Your task to perform on an android device: add a contact in the contacts app Image 0: 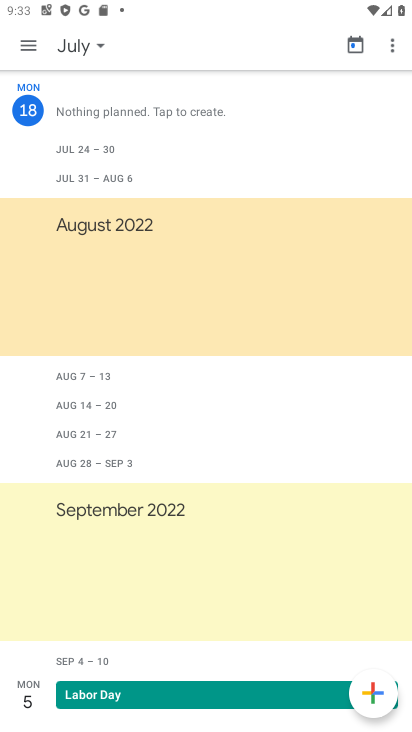
Step 0: press home button
Your task to perform on an android device: add a contact in the contacts app Image 1: 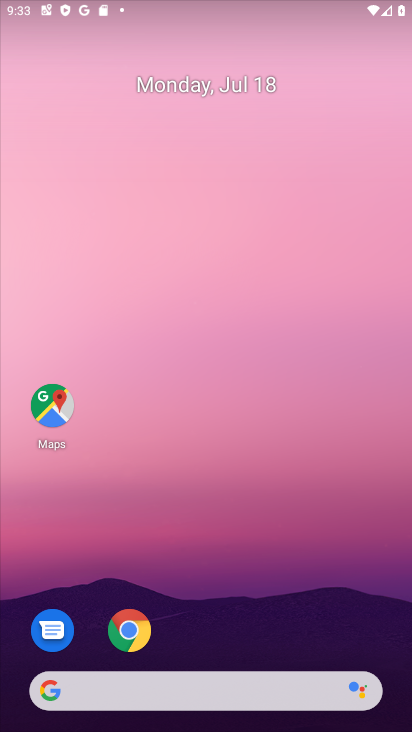
Step 1: drag from (382, 647) to (283, 70)
Your task to perform on an android device: add a contact in the contacts app Image 2: 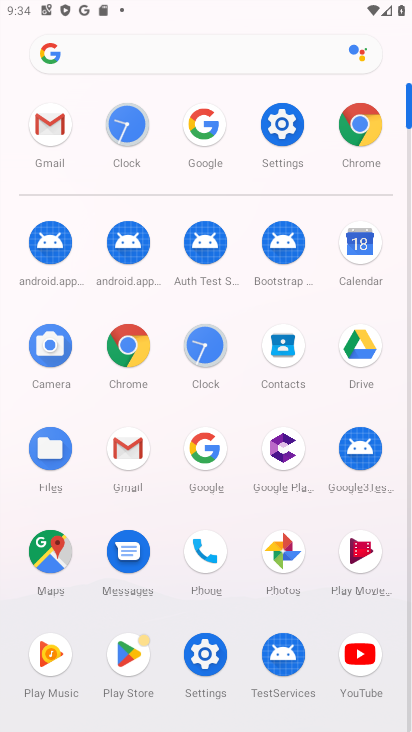
Step 2: click (279, 358)
Your task to perform on an android device: add a contact in the contacts app Image 3: 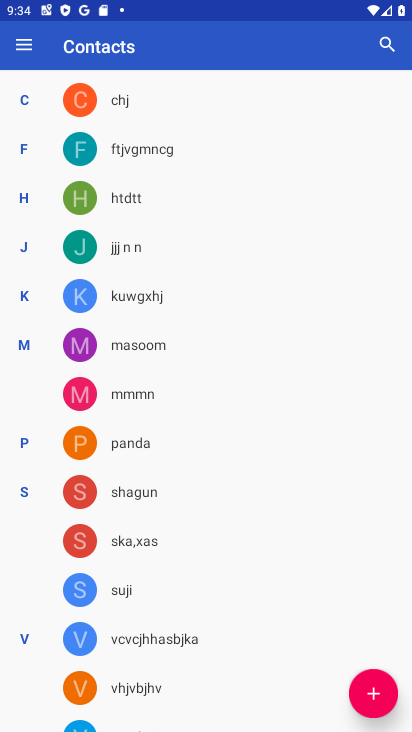
Step 3: click (376, 686)
Your task to perform on an android device: add a contact in the contacts app Image 4: 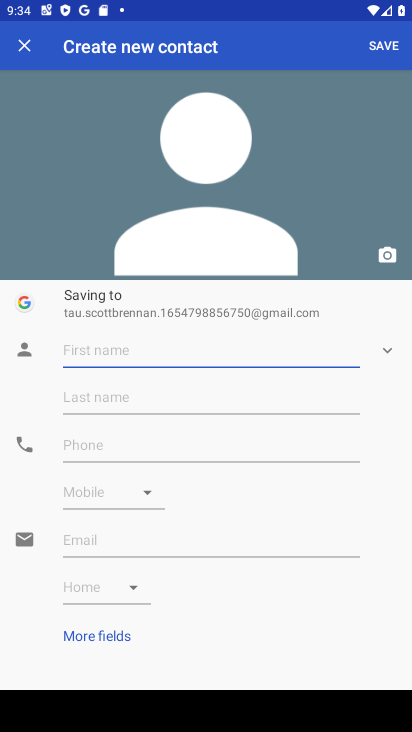
Step 4: type "hemant"
Your task to perform on an android device: add a contact in the contacts app Image 5: 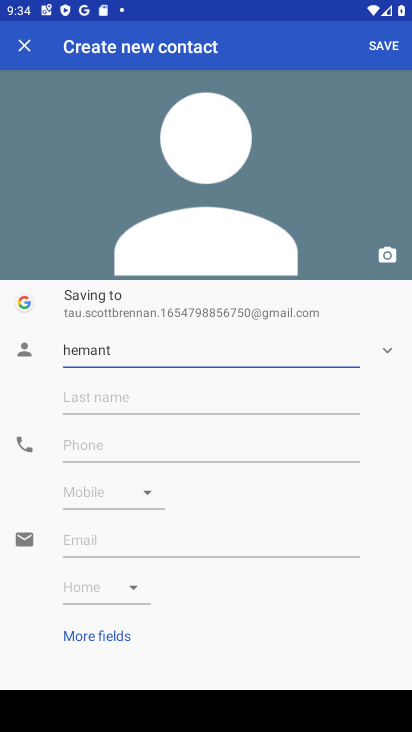
Step 5: click (387, 38)
Your task to perform on an android device: add a contact in the contacts app Image 6: 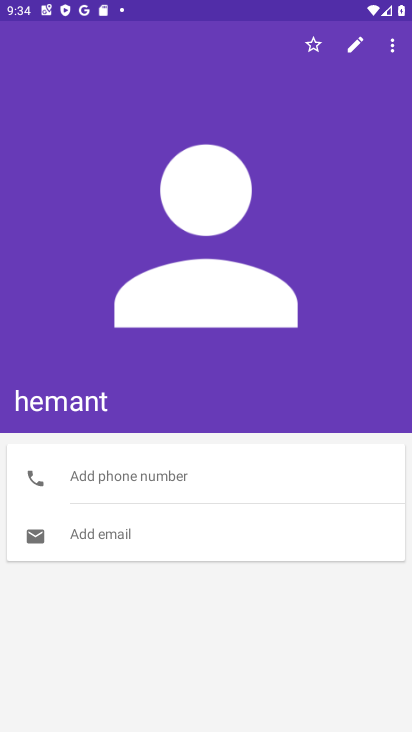
Step 6: task complete